Your task to perform on an android device: star an email in the gmail app Image 0: 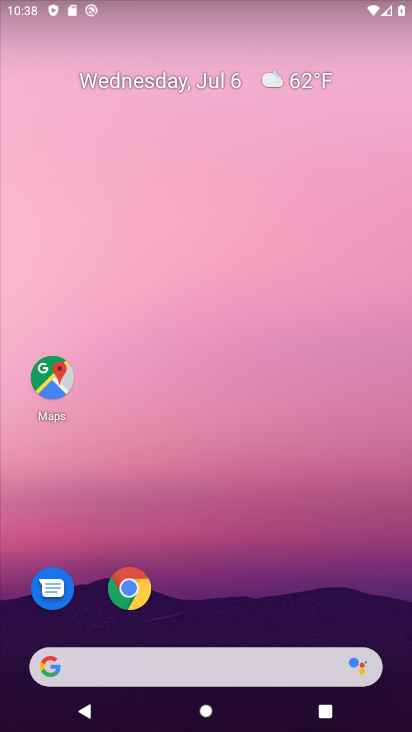
Step 0: drag from (383, 623) to (340, 157)
Your task to perform on an android device: star an email in the gmail app Image 1: 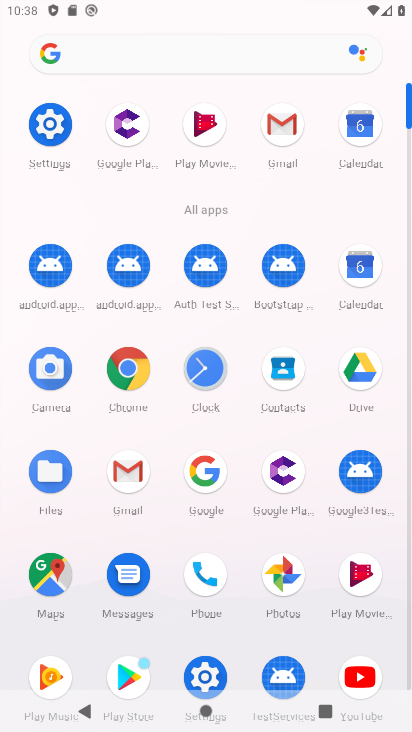
Step 1: click (126, 472)
Your task to perform on an android device: star an email in the gmail app Image 2: 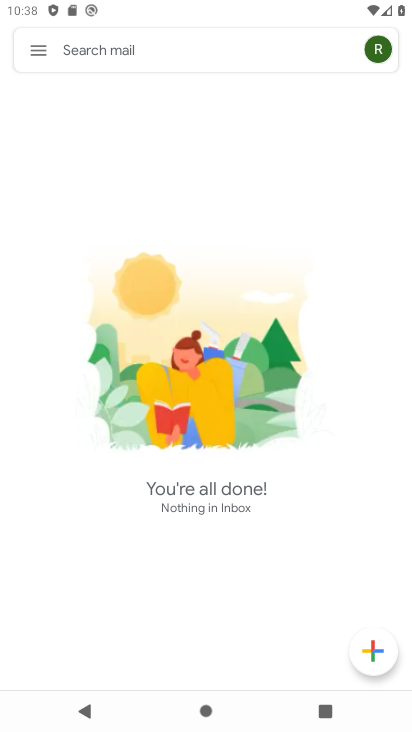
Step 2: click (35, 53)
Your task to perform on an android device: star an email in the gmail app Image 3: 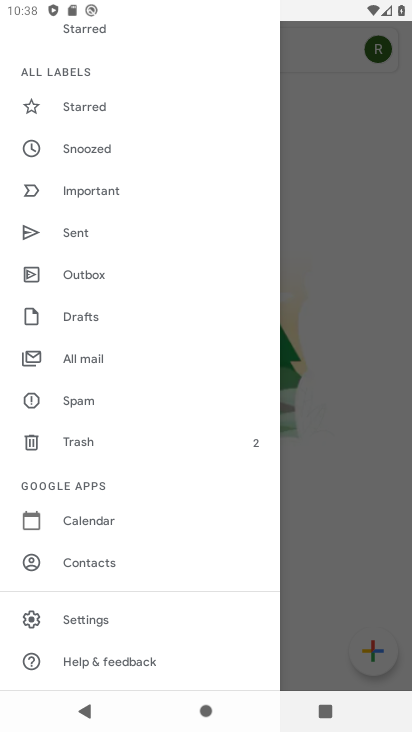
Step 3: click (96, 366)
Your task to perform on an android device: star an email in the gmail app Image 4: 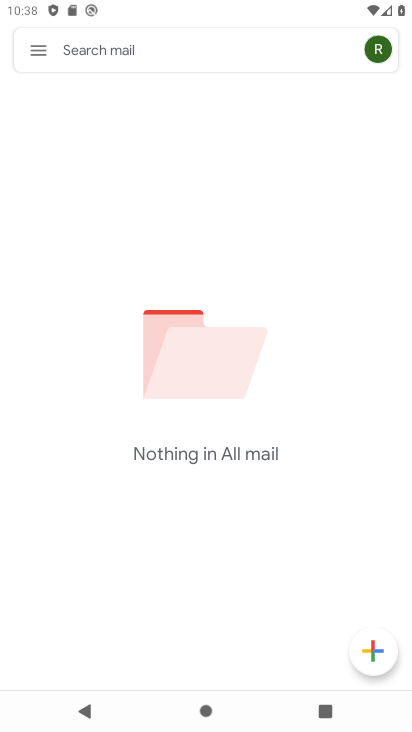
Step 4: task complete